Your task to perform on an android device: Show me productivity apps on the Play Store Image 0: 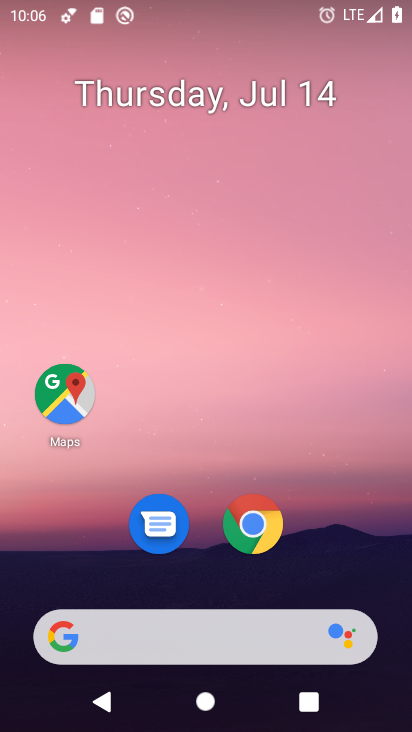
Step 0: drag from (343, 546) to (315, 14)
Your task to perform on an android device: Show me productivity apps on the Play Store Image 1: 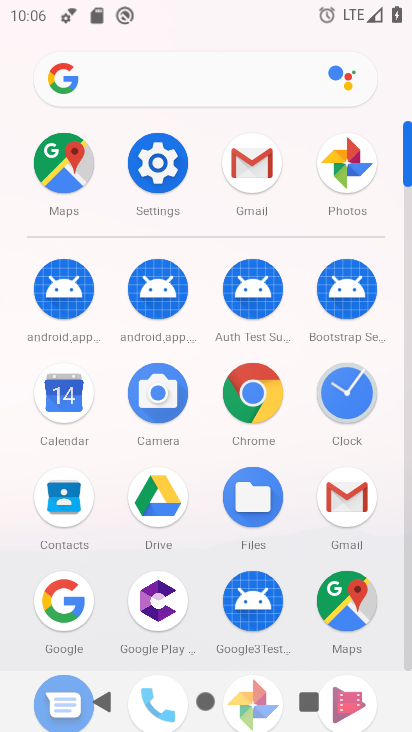
Step 1: drag from (196, 469) to (210, 172)
Your task to perform on an android device: Show me productivity apps on the Play Store Image 2: 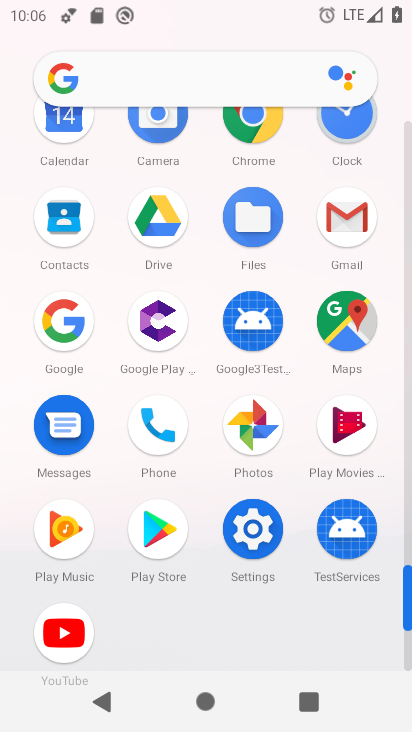
Step 2: click (169, 527)
Your task to perform on an android device: Show me productivity apps on the Play Store Image 3: 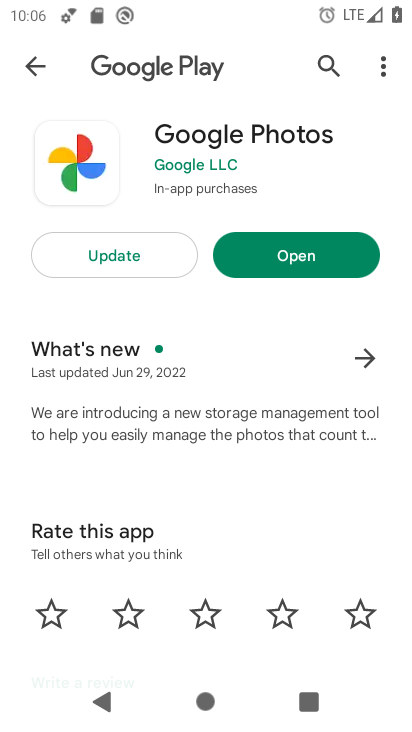
Step 3: click (37, 60)
Your task to perform on an android device: Show me productivity apps on the Play Store Image 4: 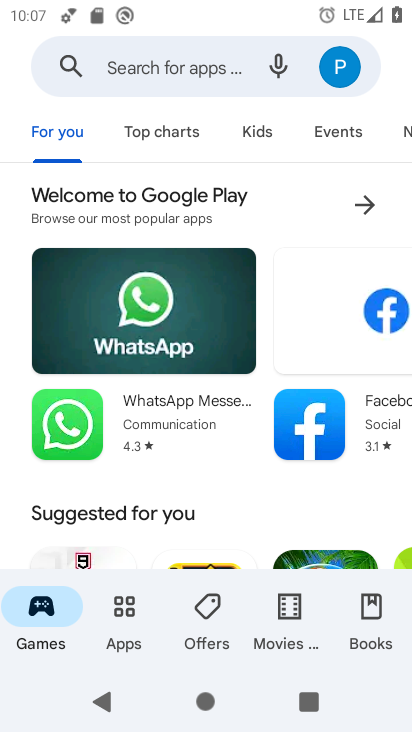
Step 4: click (128, 613)
Your task to perform on an android device: Show me productivity apps on the Play Store Image 5: 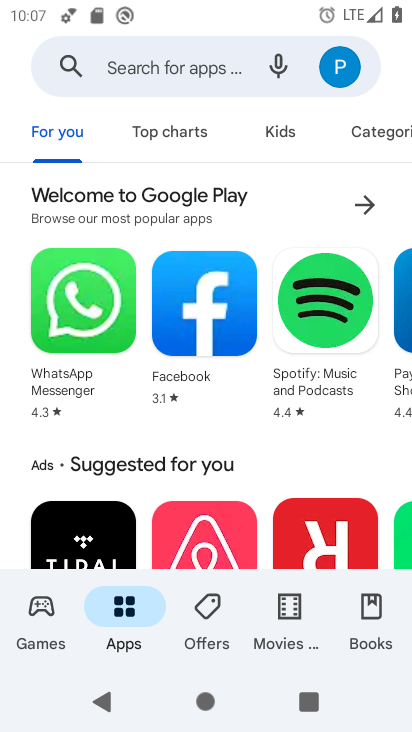
Step 5: click (364, 130)
Your task to perform on an android device: Show me productivity apps on the Play Store Image 6: 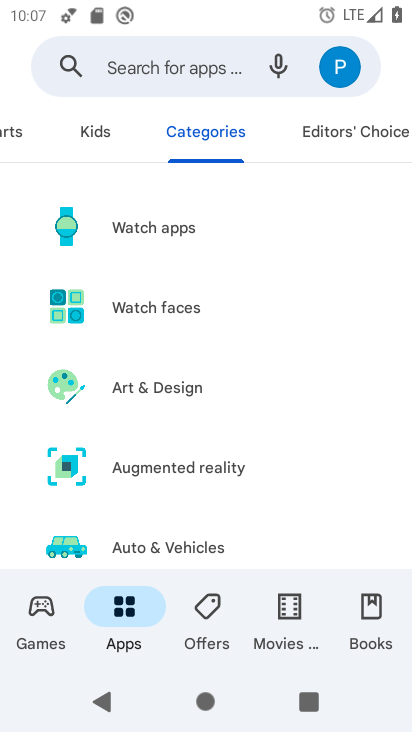
Step 6: drag from (291, 467) to (285, 14)
Your task to perform on an android device: Show me productivity apps on the Play Store Image 7: 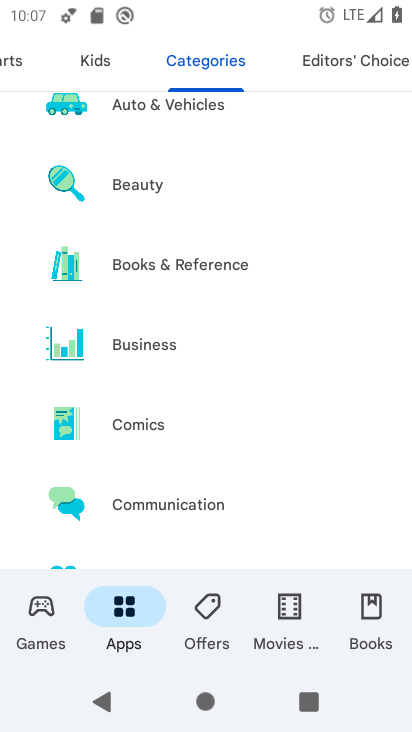
Step 7: drag from (240, 430) to (274, 4)
Your task to perform on an android device: Show me productivity apps on the Play Store Image 8: 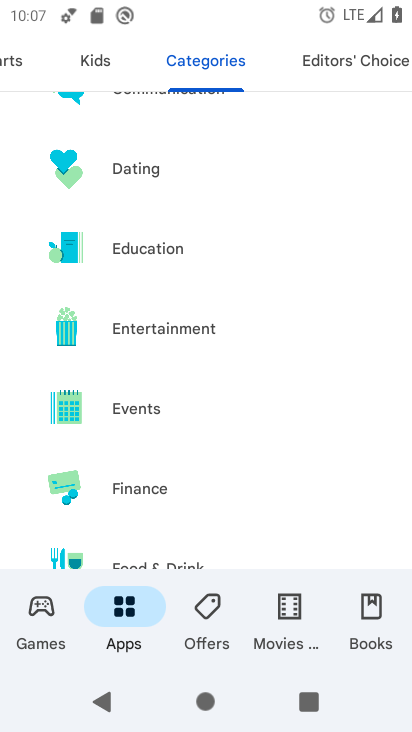
Step 8: drag from (278, 494) to (309, 76)
Your task to perform on an android device: Show me productivity apps on the Play Store Image 9: 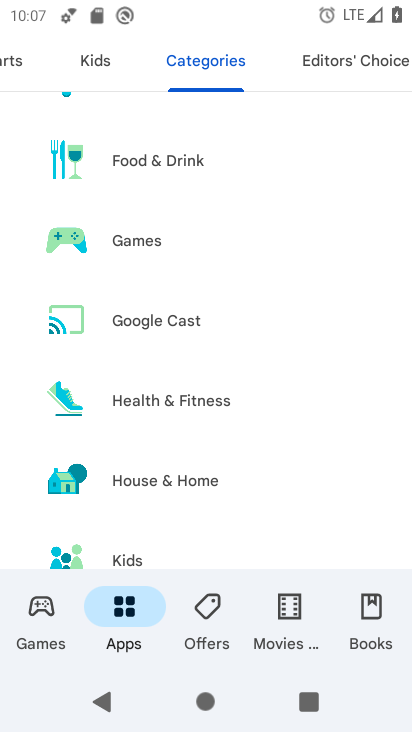
Step 9: drag from (275, 474) to (322, 90)
Your task to perform on an android device: Show me productivity apps on the Play Store Image 10: 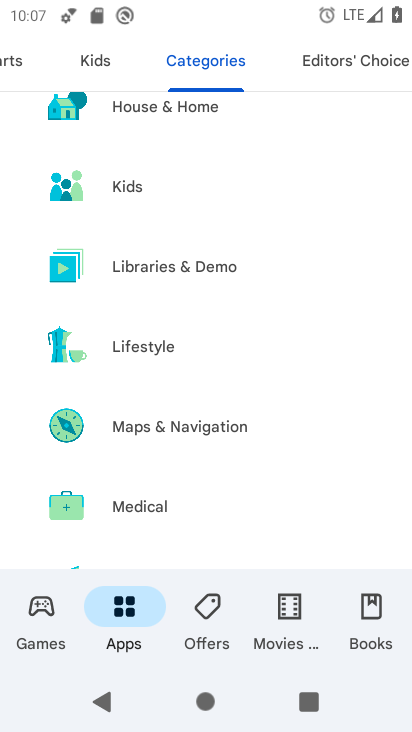
Step 10: drag from (258, 458) to (268, 112)
Your task to perform on an android device: Show me productivity apps on the Play Store Image 11: 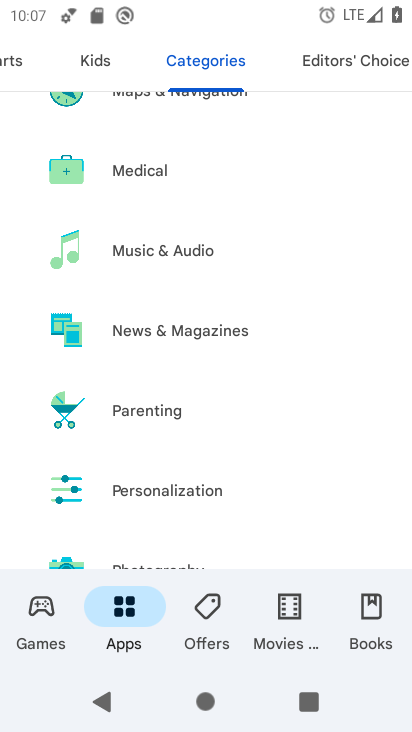
Step 11: drag from (295, 477) to (303, 184)
Your task to perform on an android device: Show me productivity apps on the Play Store Image 12: 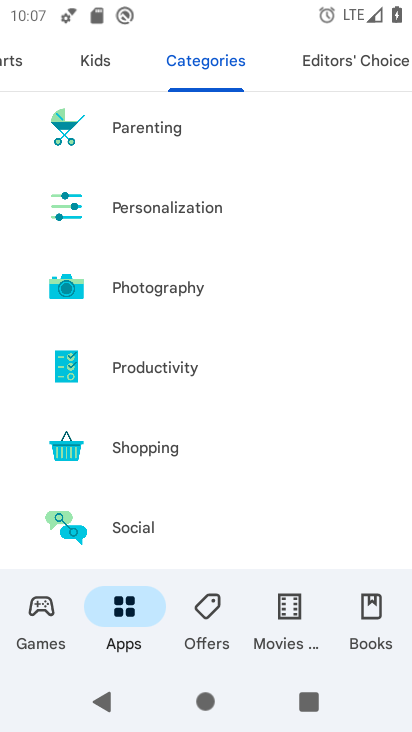
Step 12: click (185, 364)
Your task to perform on an android device: Show me productivity apps on the Play Store Image 13: 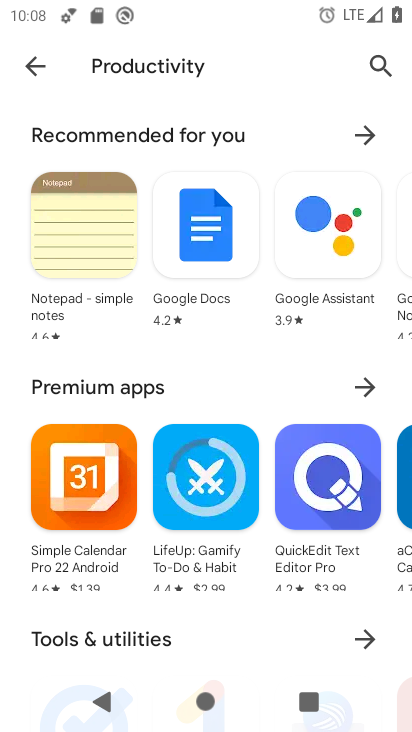
Step 13: task complete